Your task to perform on an android device: delete the emails in spam in the gmail app Image 0: 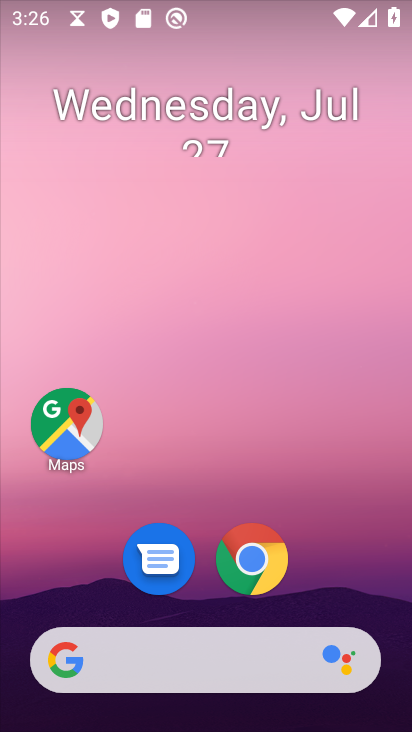
Step 0: drag from (90, 576) to (217, 54)
Your task to perform on an android device: delete the emails in spam in the gmail app Image 1: 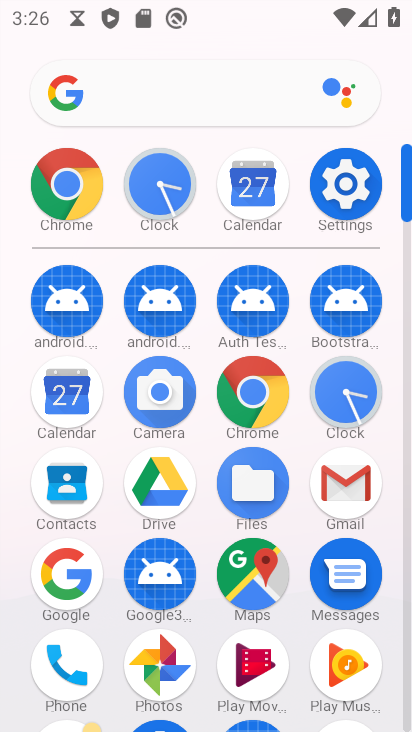
Step 1: click (337, 485)
Your task to perform on an android device: delete the emails in spam in the gmail app Image 2: 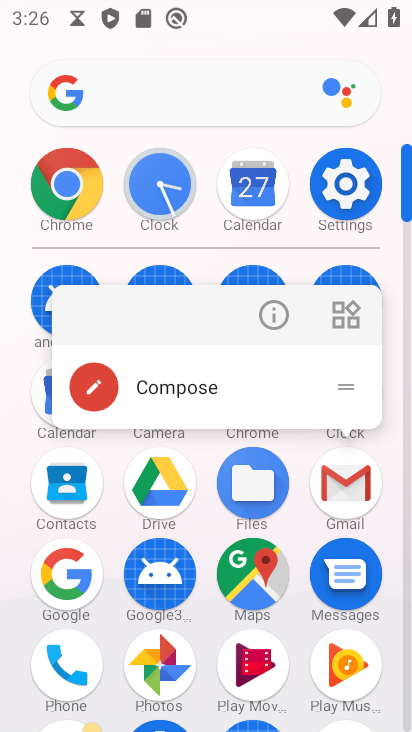
Step 2: click (342, 487)
Your task to perform on an android device: delete the emails in spam in the gmail app Image 3: 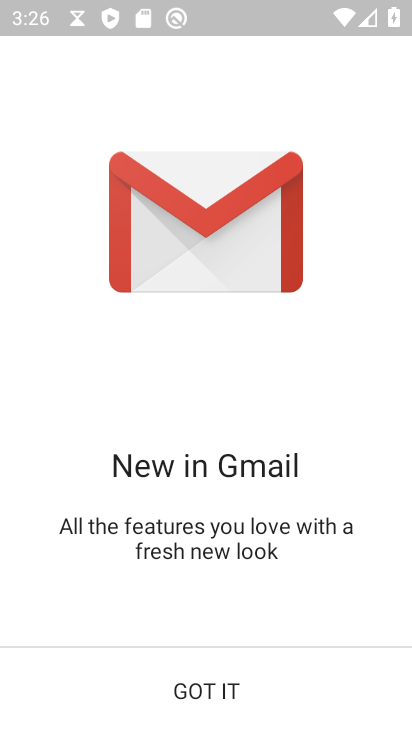
Step 3: click (225, 677)
Your task to perform on an android device: delete the emails in spam in the gmail app Image 4: 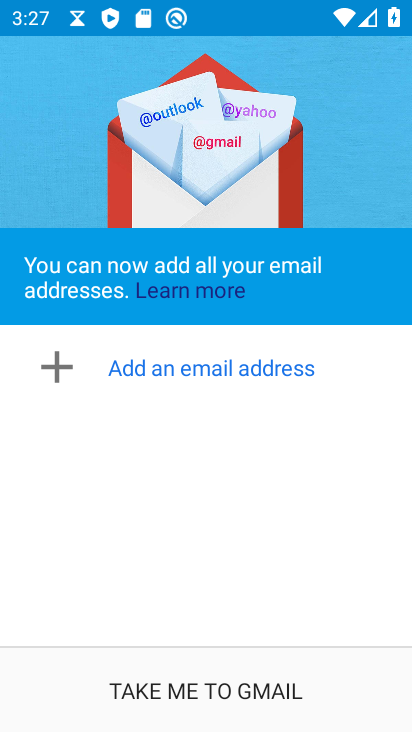
Step 4: click (206, 691)
Your task to perform on an android device: delete the emails in spam in the gmail app Image 5: 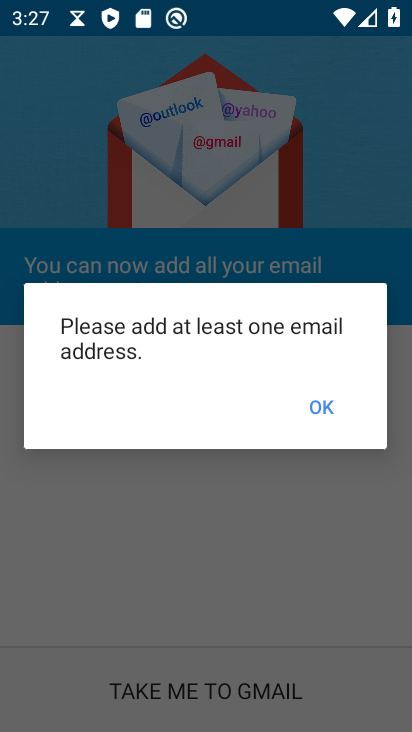
Step 5: task complete